Your task to perform on an android device: manage bookmarks in the chrome app Image 0: 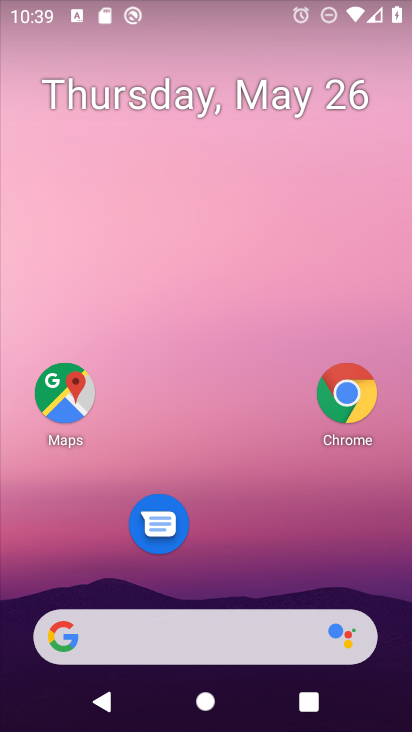
Step 0: click (357, 386)
Your task to perform on an android device: manage bookmarks in the chrome app Image 1: 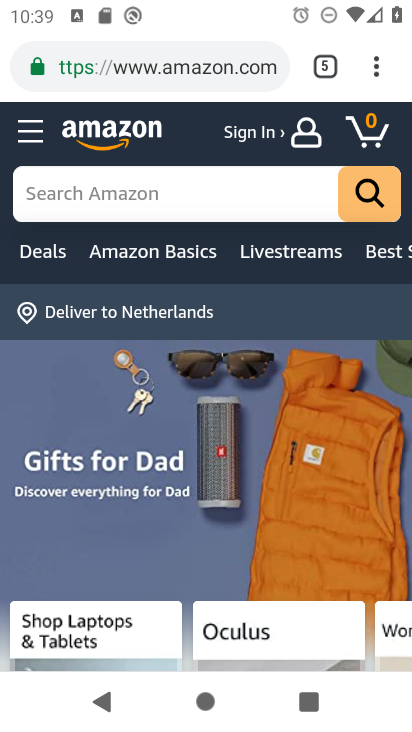
Step 1: click (375, 69)
Your task to perform on an android device: manage bookmarks in the chrome app Image 2: 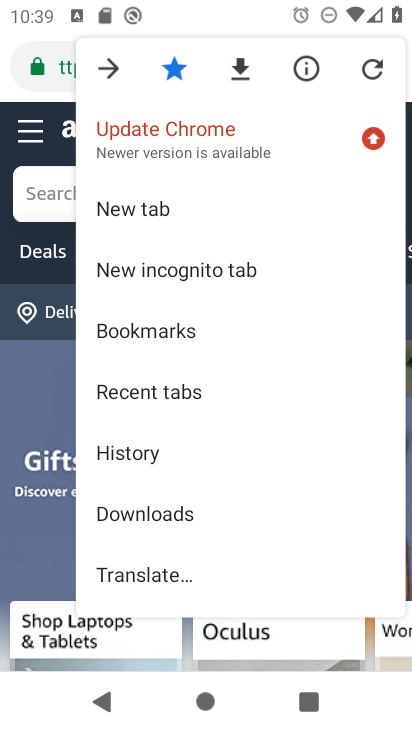
Step 2: click (188, 339)
Your task to perform on an android device: manage bookmarks in the chrome app Image 3: 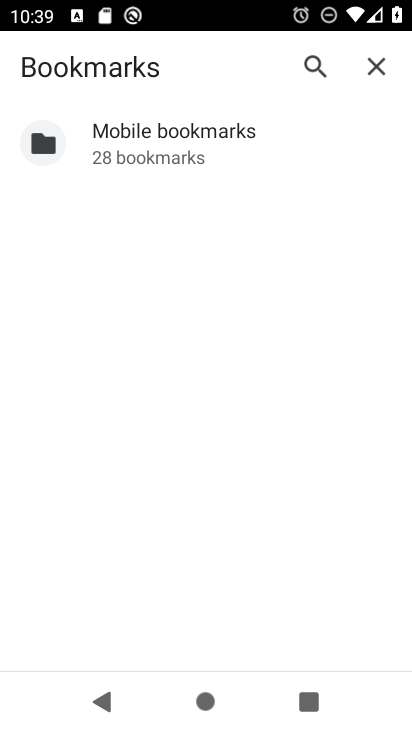
Step 3: click (186, 138)
Your task to perform on an android device: manage bookmarks in the chrome app Image 4: 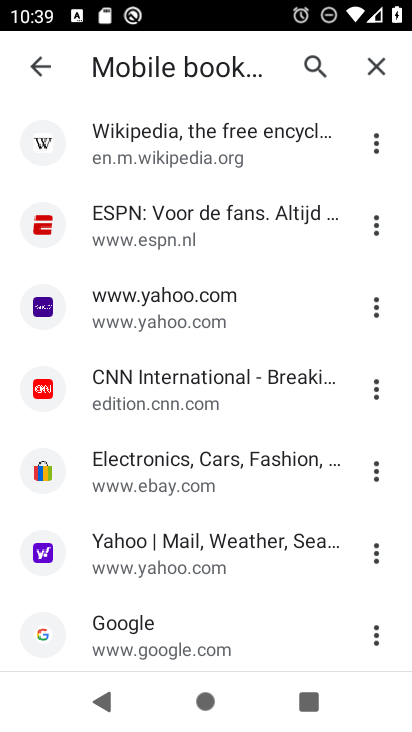
Step 4: click (373, 217)
Your task to perform on an android device: manage bookmarks in the chrome app Image 5: 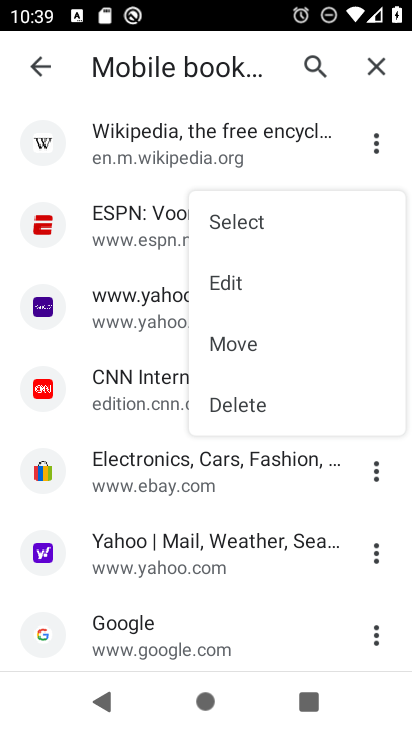
Step 5: click (280, 272)
Your task to perform on an android device: manage bookmarks in the chrome app Image 6: 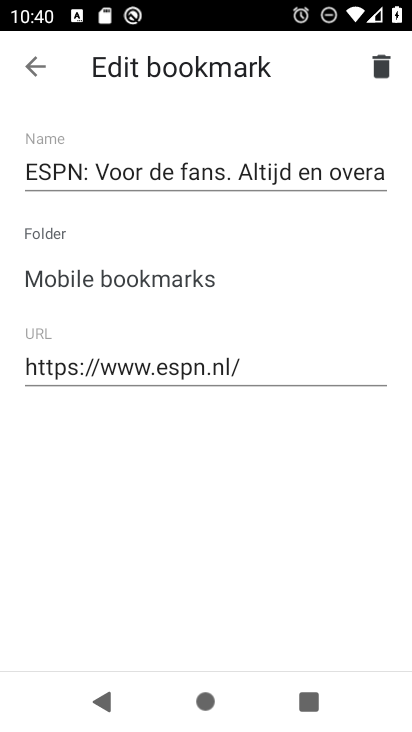
Step 6: click (28, 51)
Your task to perform on an android device: manage bookmarks in the chrome app Image 7: 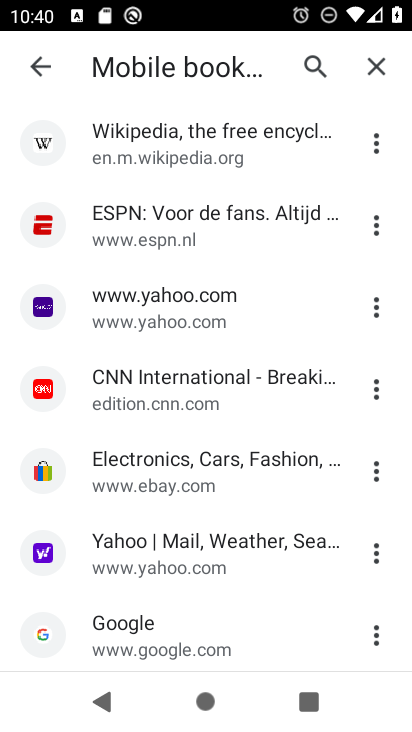
Step 7: click (39, 62)
Your task to perform on an android device: manage bookmarks in the chrome app Image 8: 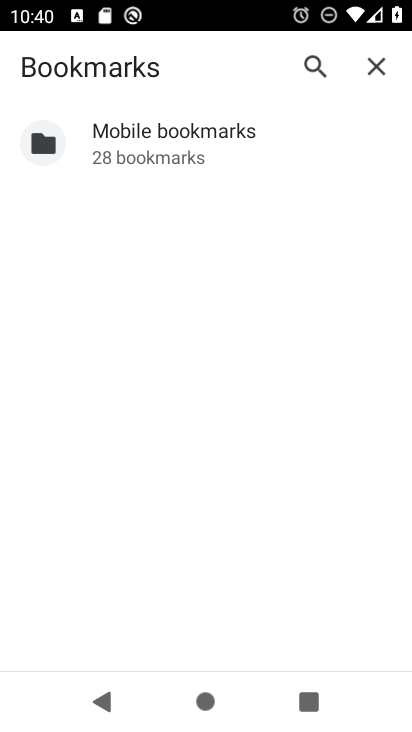
Step 8: task complete